Your task to perform on an android device: change the clock display to show seconds Image 0: 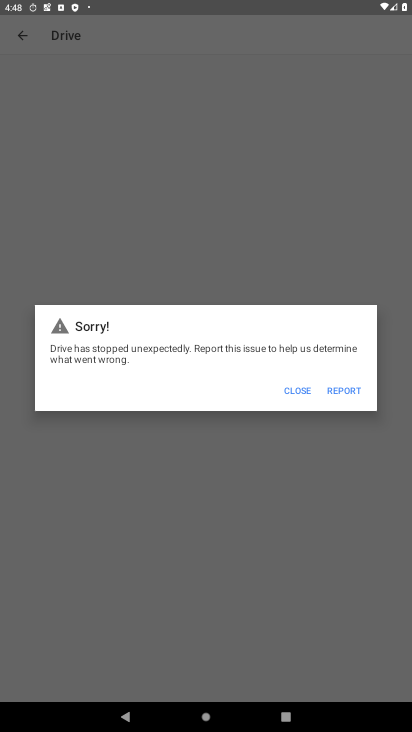
Step 0: press home button
Your task to perform on an android device: change the clock display to show seconds Image 1: 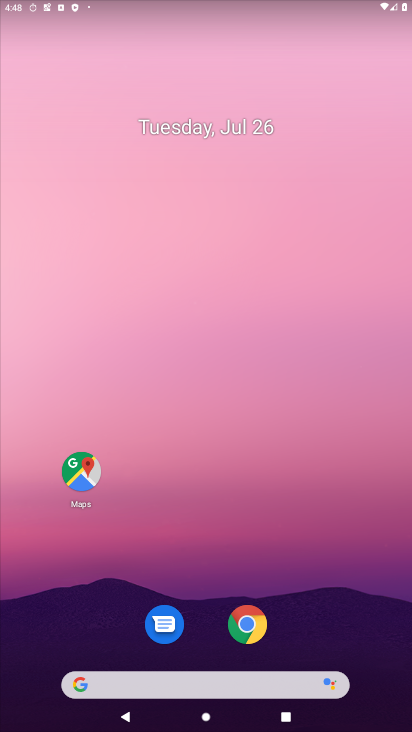
Step 1: drag from (207, 676) to (189, 3)
Your task to perform on an android device: change the clock display to show seconds Image 2: 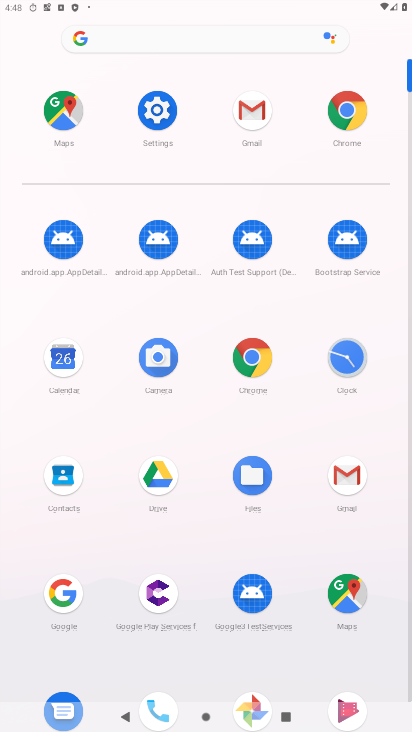
Step 2: click (340, 366)
Your task to perform on an android device: change the clock display to show seconds Image 3: 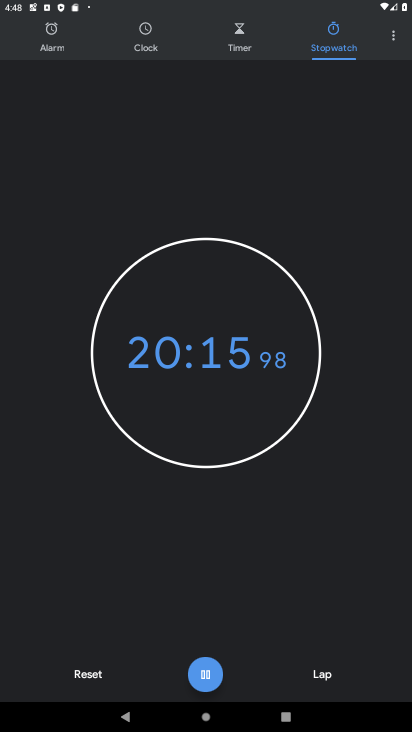
Step 3: click (393, 42)
Your task to perform on an android device: change the clock display to show seconds Image 4: 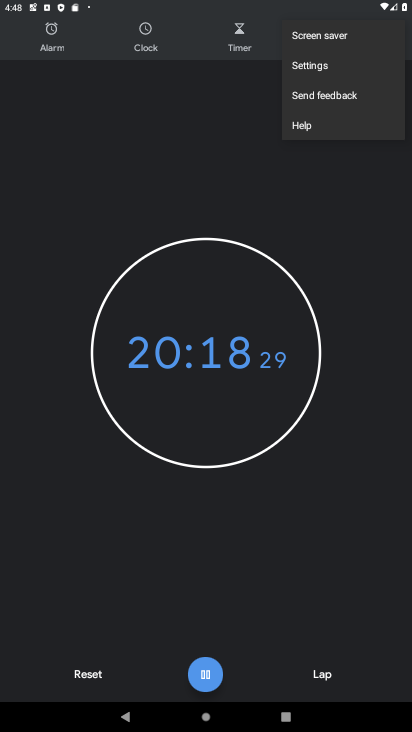
Step 4: click (283, 57)
Your task to perform on an android device: change the clock display to show seconds Image 5: 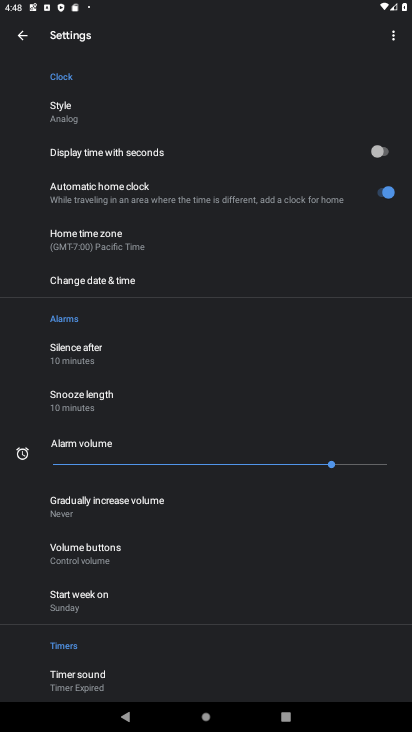
Step 5: click (383, 150)
Your task to perform on an android device: change the clock display to show seconds Image 6: 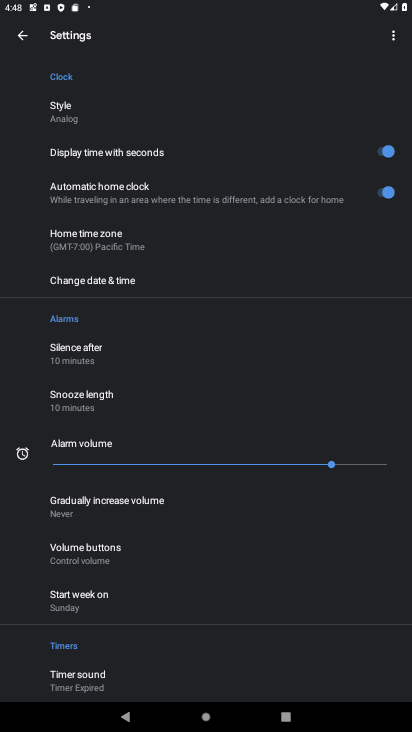
Step 6: task complete